Your task to perform on an android device: change the clock style Image 0: 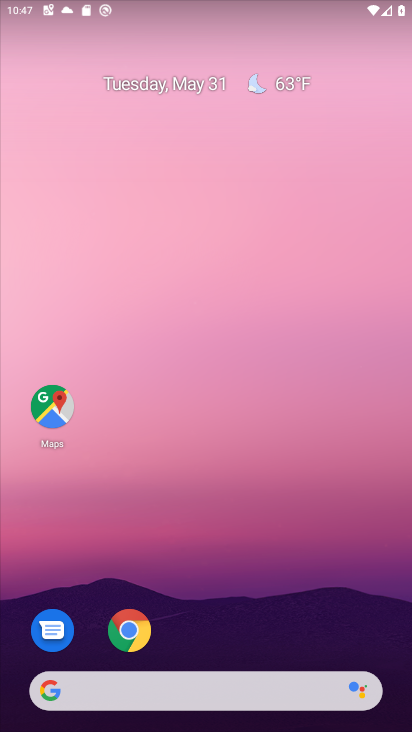
Step 0: click (309, 82)
Your task to perform on an android device: change the clock style Image 1: 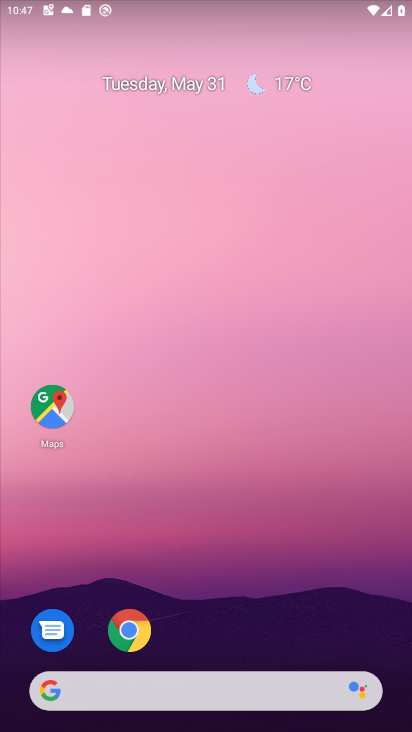
Step 1: drag from (246, 567) to (237, 181)
Your task to perform on an android device: change the clock style Image 2: 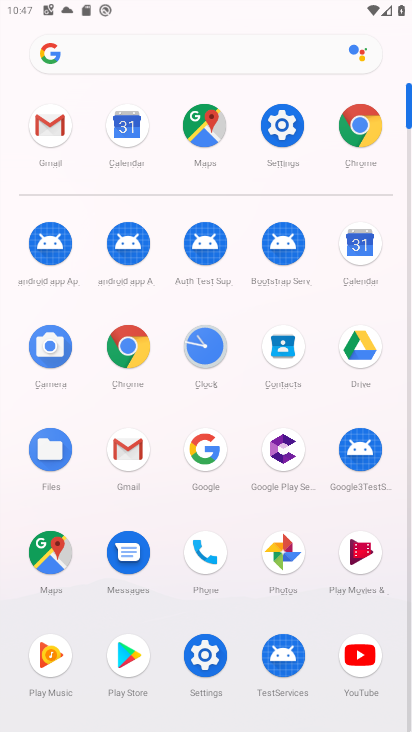
Step 2: click (213, 343)
Your task to perform on an android device: change the clock style Image 3: 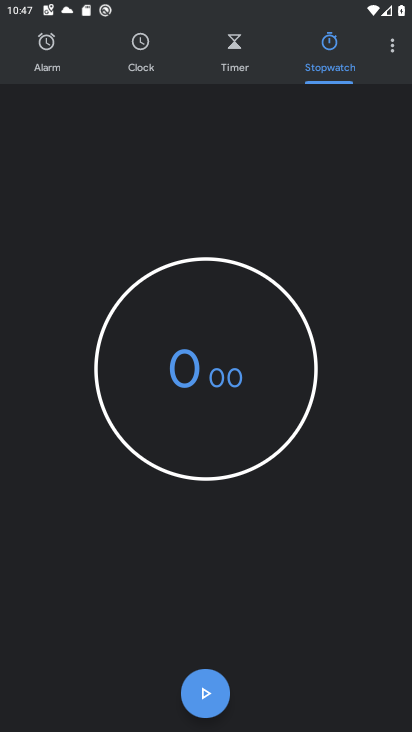
Step 3: click (396, 44)
Your task to perform on an android device: change the clock style Image 4: 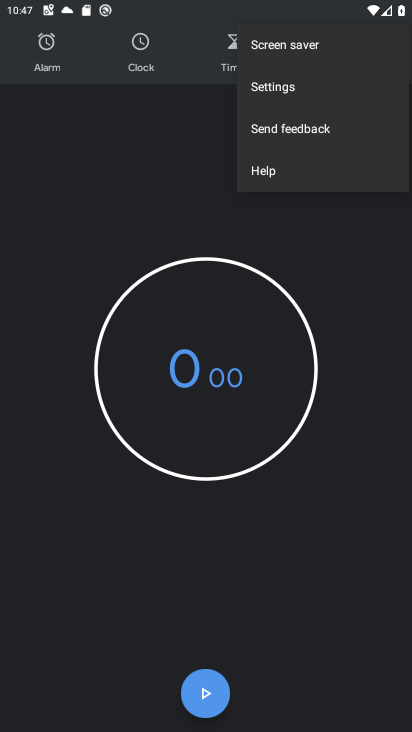
Step 4: click (306, 93)
Your task to perform on an android device: change the clock style Image 5: 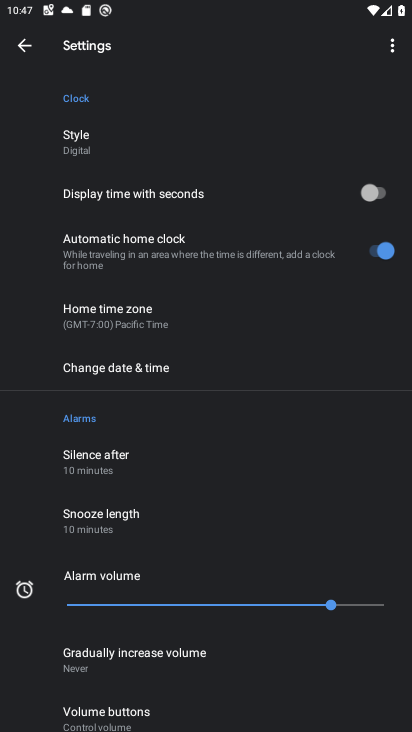
Step 5: click (96, 141)
Your task to perform on an android device: change the clock style Image 6: 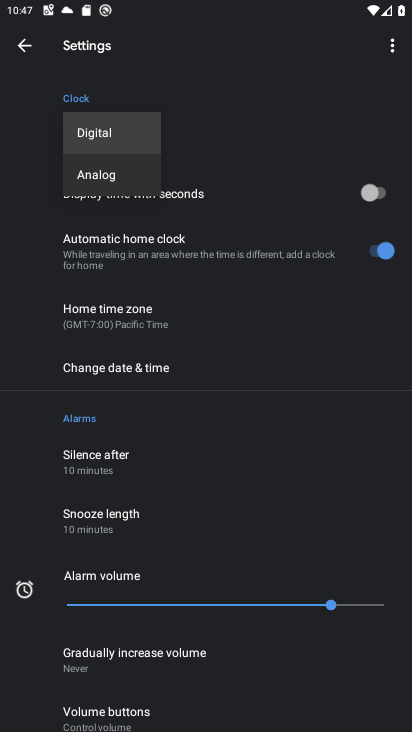
Step 6: click (114, 178)
Your task to perform on an android device: change the clock style Image 7: 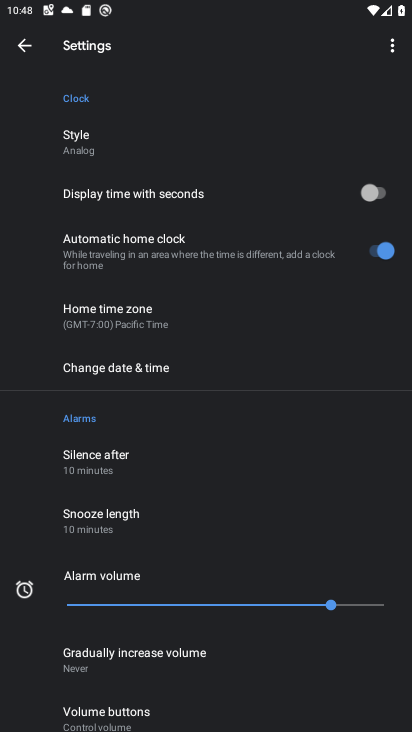
Step 7: task complete